Your task to perform on an android device: Open maps Image 0: 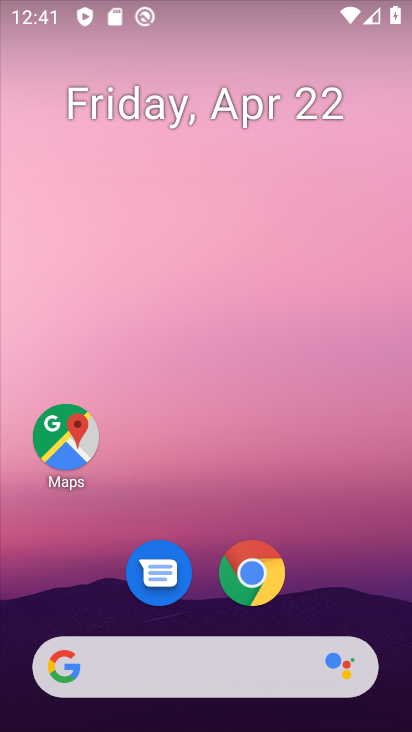
Step 0: drag from (189, 605) to (290, 151)
Your task to perform on an android device: Open maps Image 1: 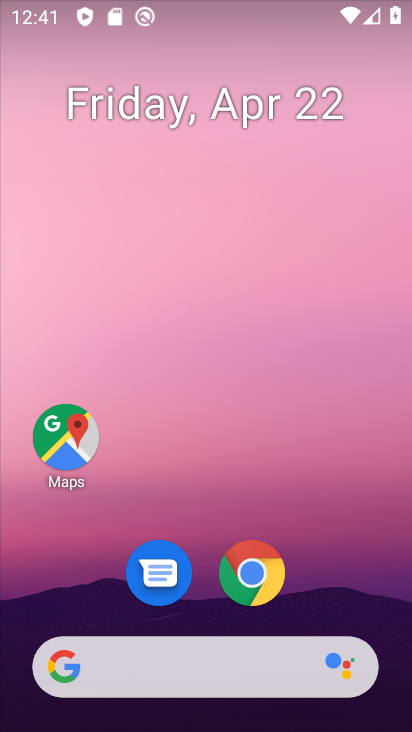
Step 1: drag from (184, 630) to (273, 145)
Your task to perform on an android device: Open maps Image 2: 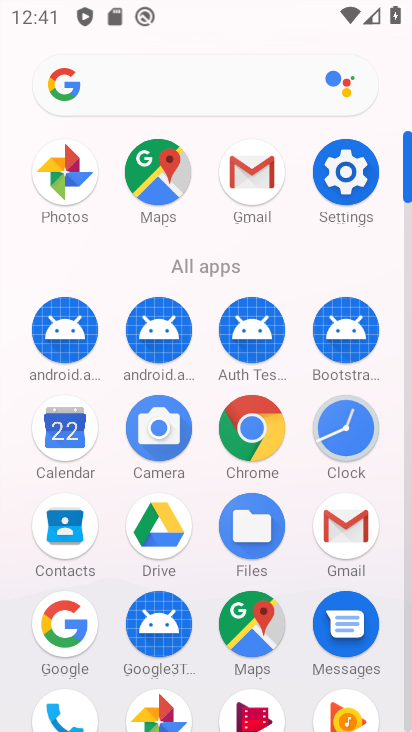
Step 2: click (245, 613)
Your task to perform on an android device: Open maps Image 3: 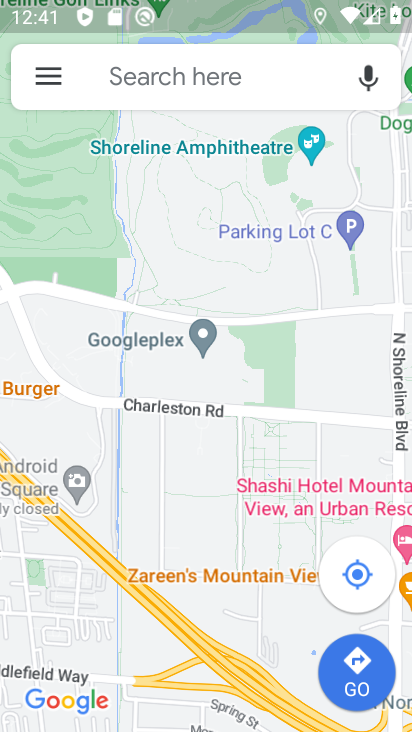
Step 3: task complete